Your task to perform on an android device: Open calendar and show me the fourth week of next month Image 0: 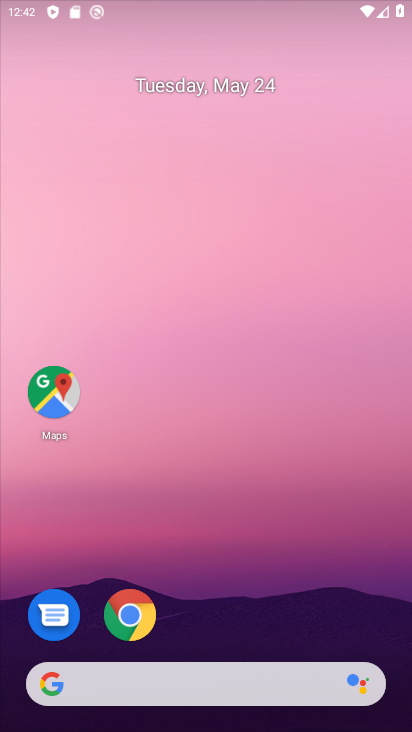
Step 0: press home button
Your task to perform on an android device: Open calendar and show me the fourth week of next month Image 1: 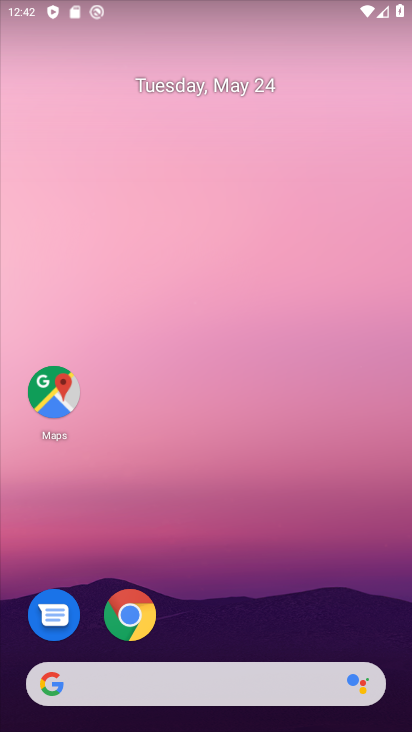
Step 1: drag from (209, 642) to (231, 59)
Your task to perform on an android device: Open calendar and show me the fourth week of next month Image 2: 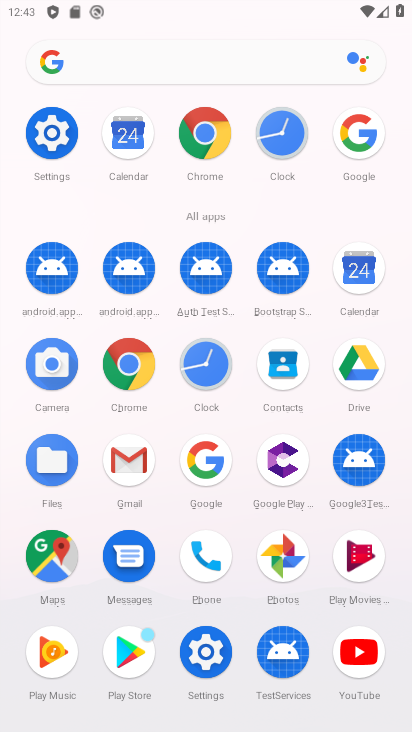
Step 2: click (360, 265)
Your task to perform on an android device: Open calendar and show me the fourth week of next month Image 3: 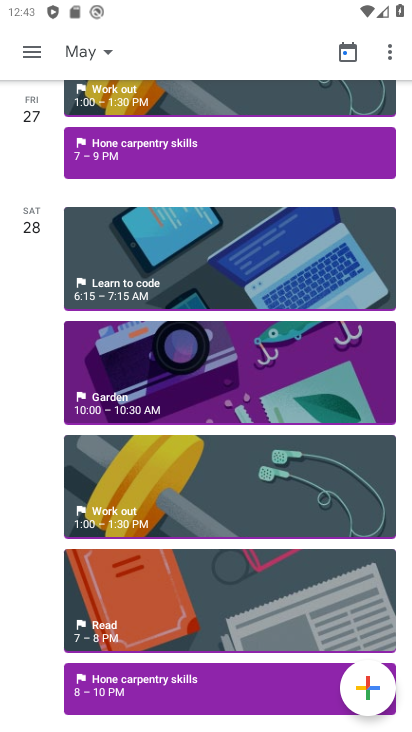
Step 3: click (101, 54)
Your task to perform on an android device: Open calendar and show me the fourth week of next month Image 4: 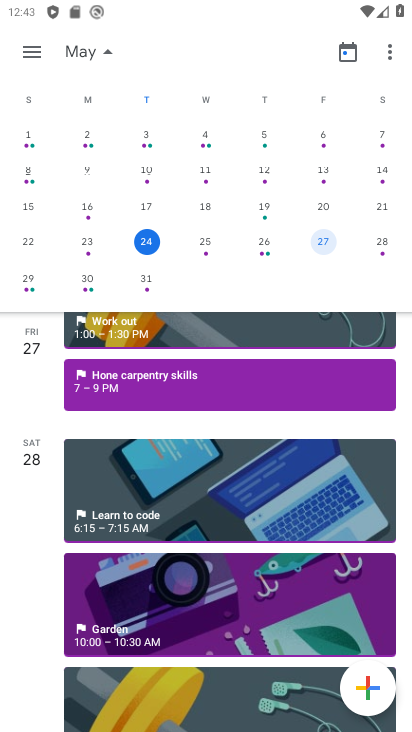
Step 4: drag from (360, 179) to (1, 194)
Your task to perform on an android device: Open calendar and show me the fourth week of next month Image 5: 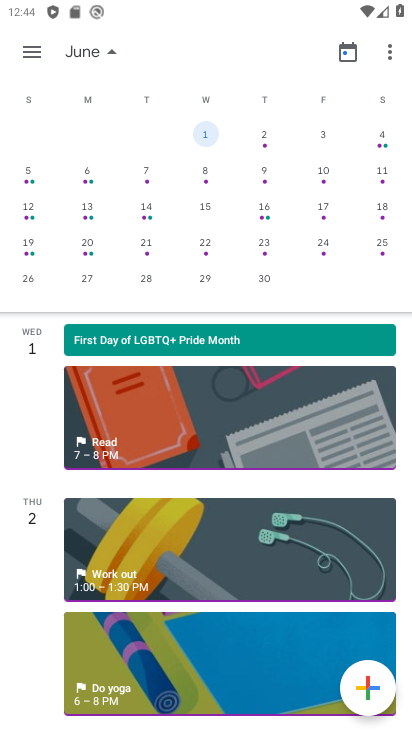
Step 5: click (33, 247)
Your task to perform on an android device: Open calendar and show me the fourth week of next month Image 6: 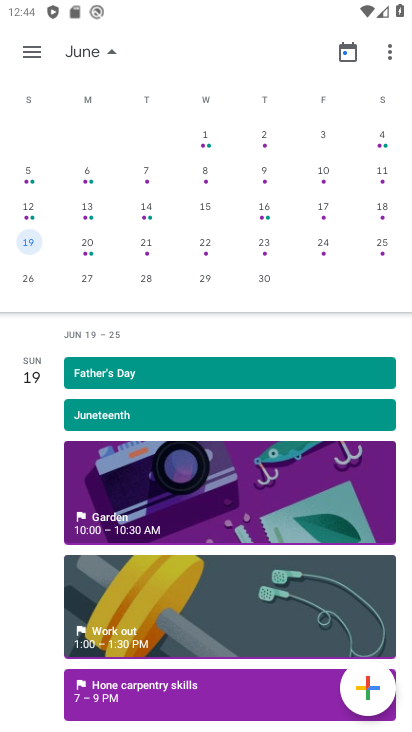
Step 6: click (113, 56)
Your task to perform on an android device: Open calendar and show me the fourth week of next month Image 7: 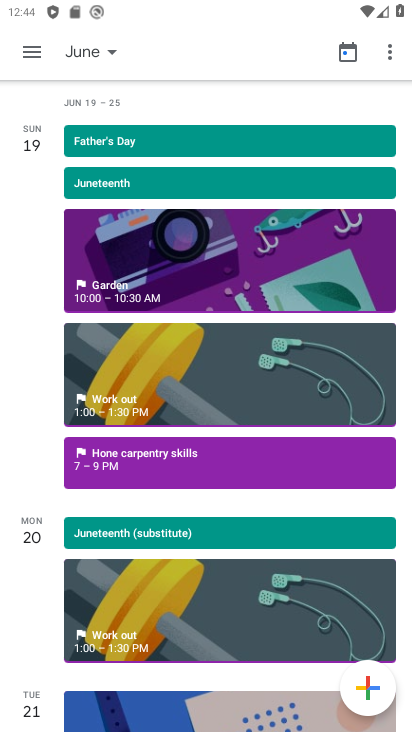
Step 7: task complete